Your task to perform on an android device: Open the web browser Image 0: 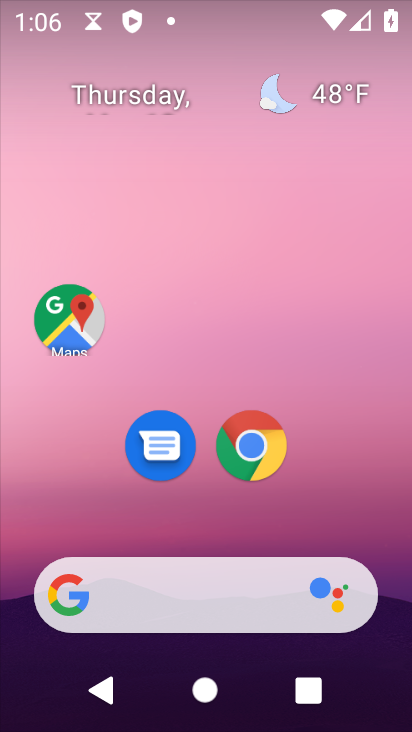
Step 0: drag from (317, 501) to (303, 84)
Your task to perform on an android device: Open the web browser Image 1: 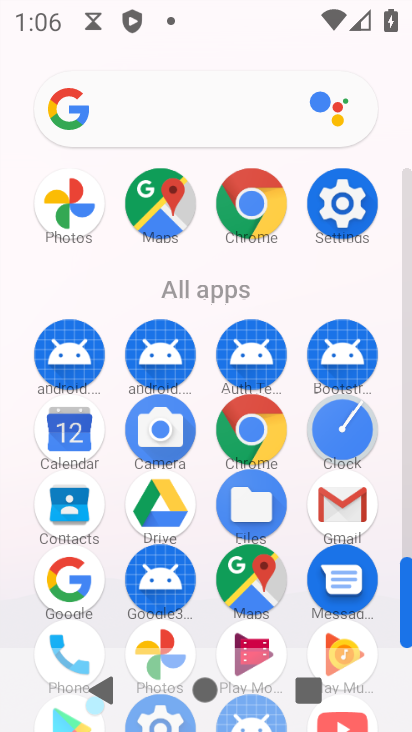
Step 1: click (252, 204)
Your task to perform on an android device: Open the web browser Image 2: 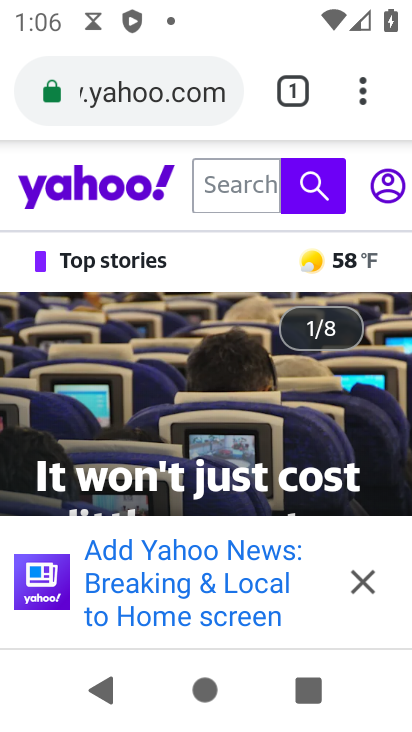
Step 2: task complete